Your task to perform on an android device: Do I have any events today? Image 0: 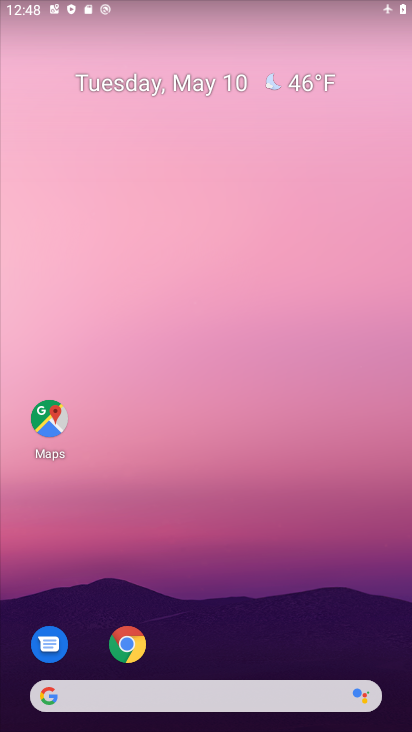
Step 0: drag from (283, 616) to (228, 248)
Your task to perform on an android device: Do I have any events today? Image 1: 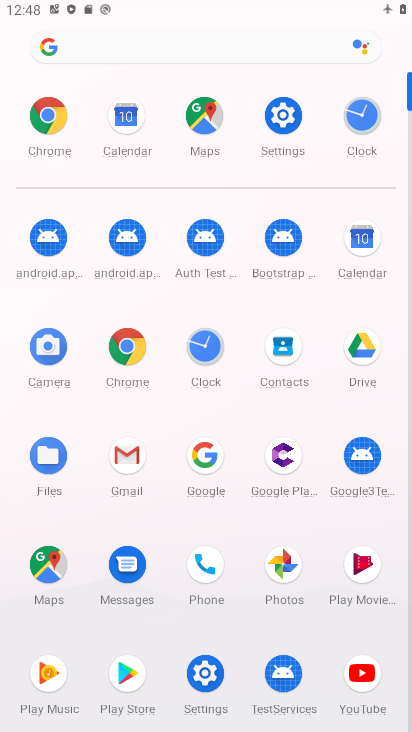
Step 1: click (349, 246)
Your task to perform on an android device: Do I have any events today? Image 2: 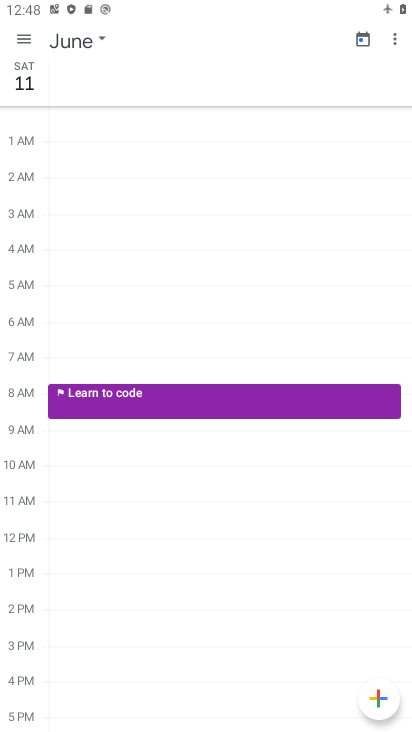
Step 2: task complete